Your task to perform on an android device: turn off priority inbox in the gmail app Image 0: 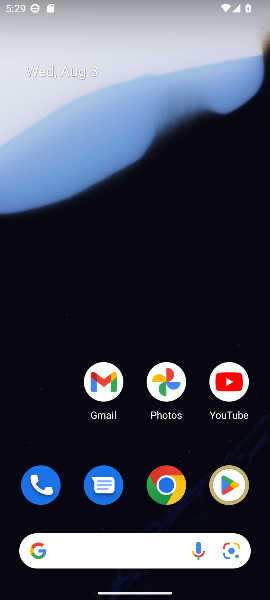
Step 0: drag from (137, 442) to (118, 57)
Your task to perform on an android device: turn off priority inbox in the gmail app Image 1: 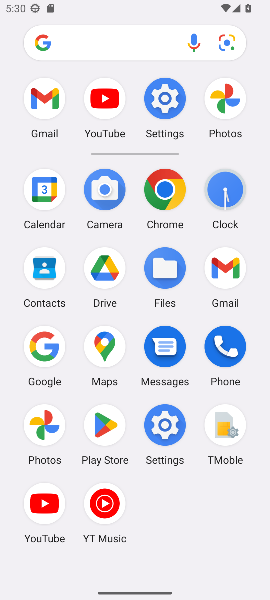
Step 1: click (238, 271)
Your task to perform on an android device: turn off priority inbox in the gmail app Image 2: 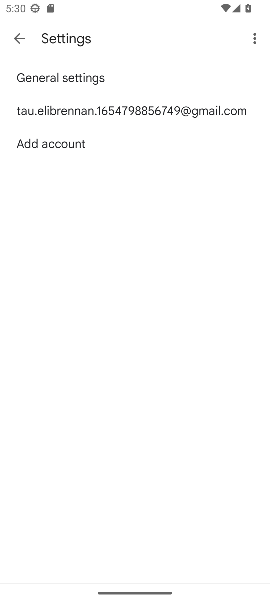
Step 2: click (134, 111)
Your task to perform on an android device: turn off priority inbox in the gmail app Image 3: 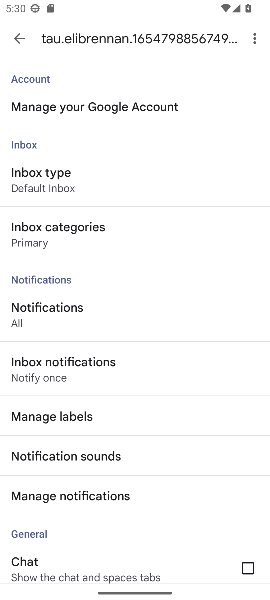
Step 3: click (74, 179)
Your task to perform on an android device: turn off priority inbox in the gmail app Image 4: 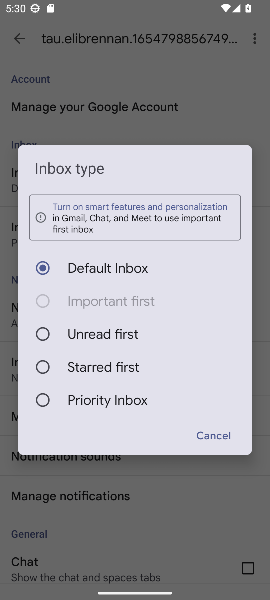
Step 4: click (68, 333)
Your task to perform on an android device: turn off priority inbox in the gmail app Image 5: 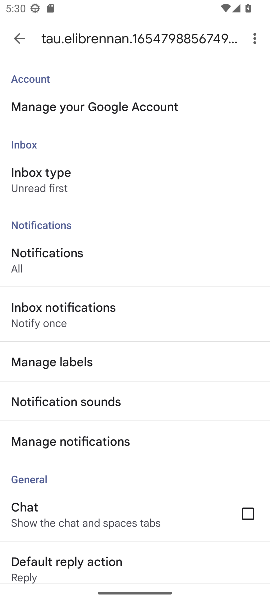
Step 5: task complete